Your task to perform on an android device: Open location settings Image 0: 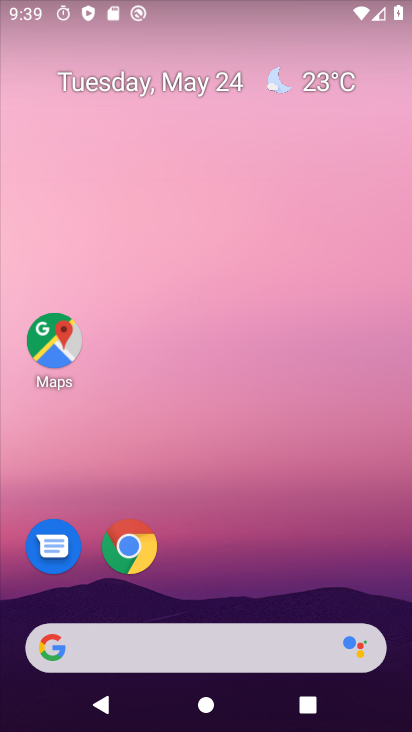
Step 0: drag from (240, 596) to (272, 81)
Your task to perform on an android device: Open location settings Image 1: 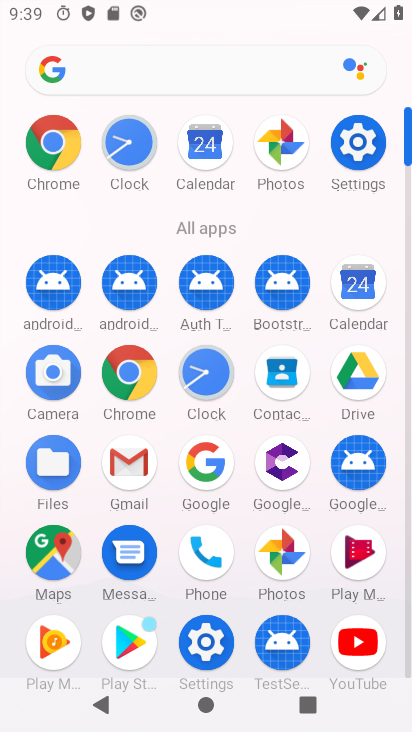
Step 1: click (361, 137)
Your task to perform on an android device: Open location settings Image 2: 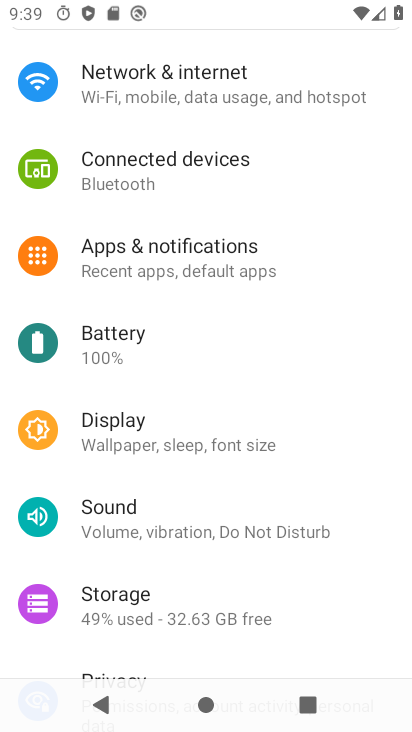
Step 2: drag from (167, 568) to (191, 256)
Your task to perform on an android device: Open location settings Image 3: 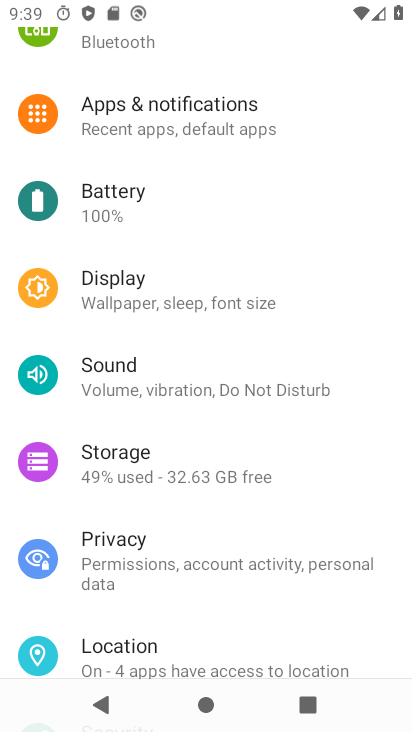
Step 3: click (161, 650)
Your task to perform on an android device: Open location settings Image 4: 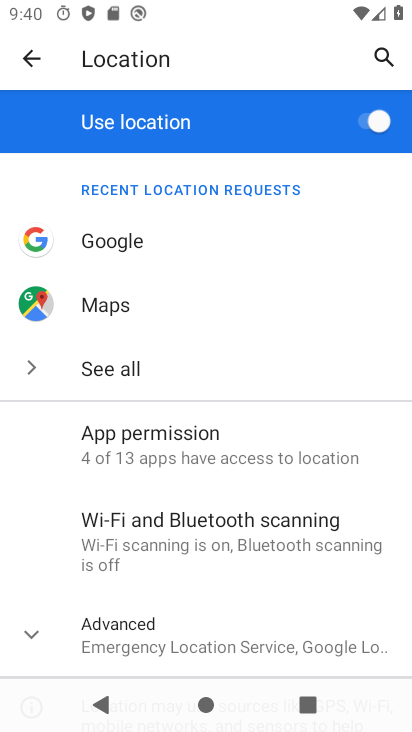
Step 4: task complete